Your task to perform on an android device: Go to sound settings Image 0: 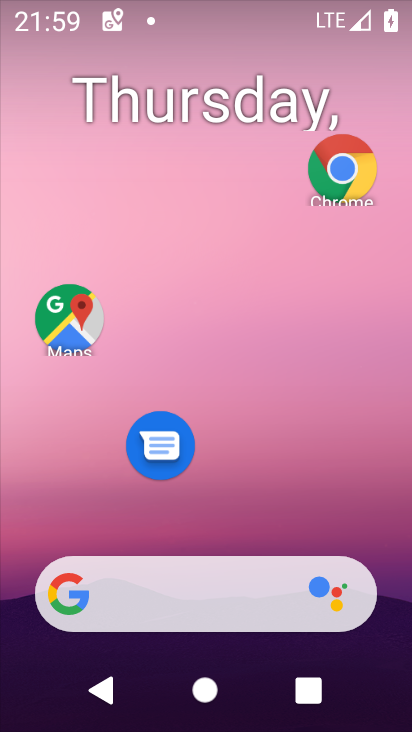
Step 0: drag from (213, 398) to (211, 156)
Your task to perform on an android device: Go to sound settings Image 1: 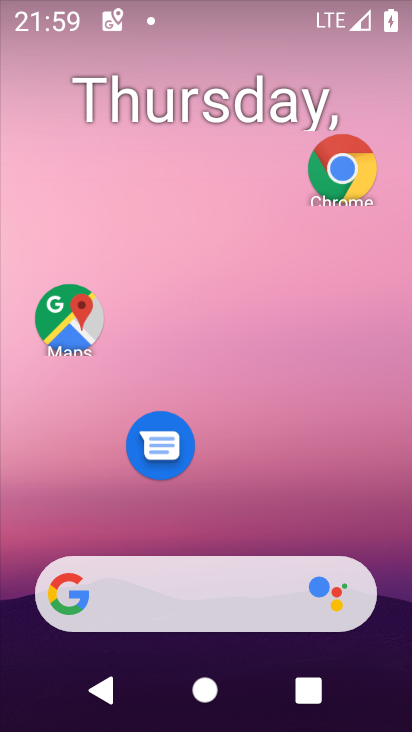
Step 1: drag from (215, 508) to (232, 134)
Your task to perform on an android device: Go to sound settings Image 2: 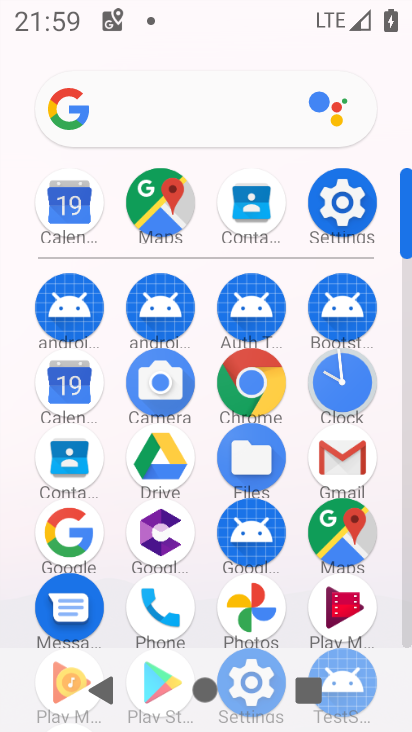
Step 2: drag from (204, 596) to (225, 251)
Your task to perform on an android device: Go to sound settings Image 3: 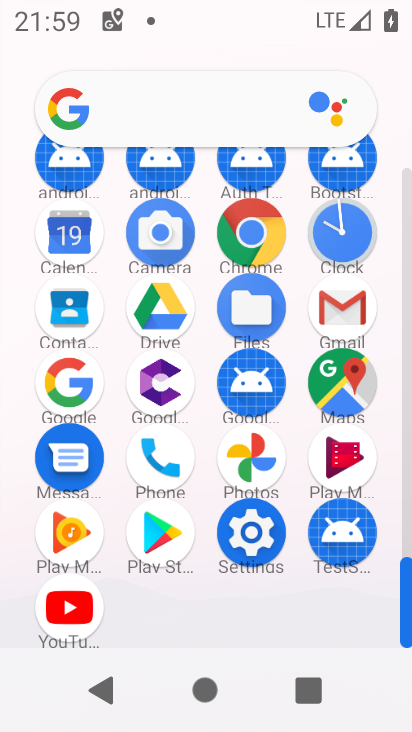
Step 3: click (247, 521)
Your task to perform on an android device: Go to sound settings Image 4: 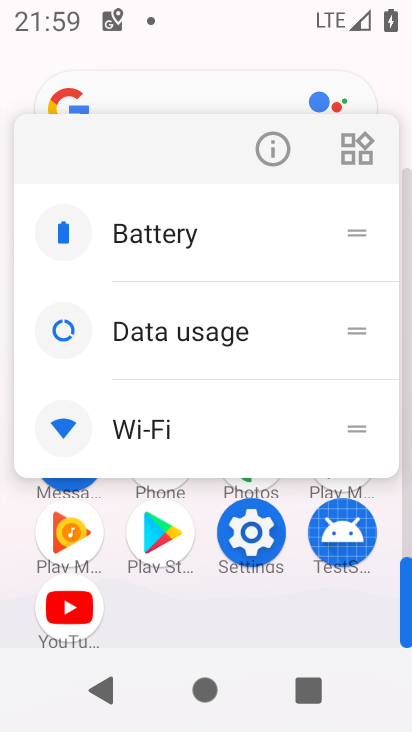
Step 4: click (282, 139)
Your task to perform on an android device: Go to sound settings Image 5: 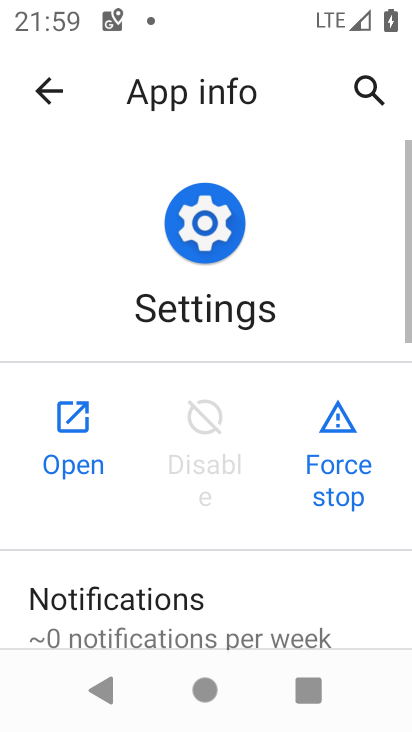
Step 5: click (85, 425)
Your task to perform on an android device: Go to sound settings Image 6: 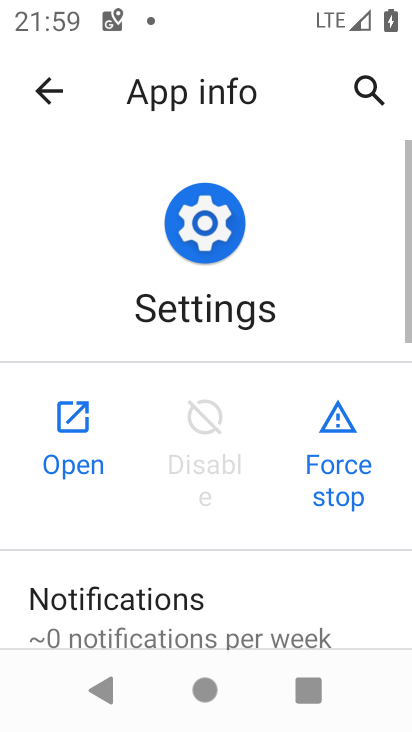
Step 6: click (85, 425)
Your task to perform on an android device: Go to sound settings Image 7: 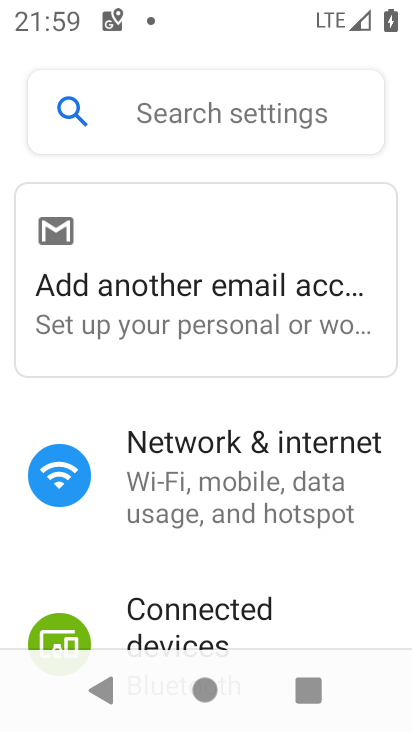
Step 7: drag from (228, 549) to (302, 143)
Your task to perform on an android device: Go to sound settings Image 8: 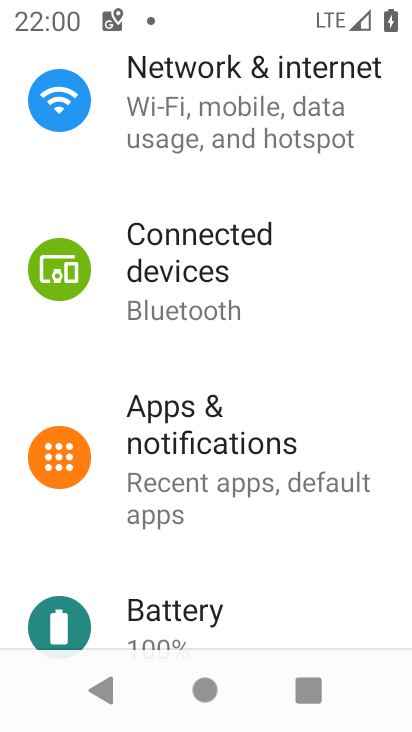
Step 8: drag from (244, 558) to (261, 119)
Your task to perform on an android device: Go to sound settings Image 9: 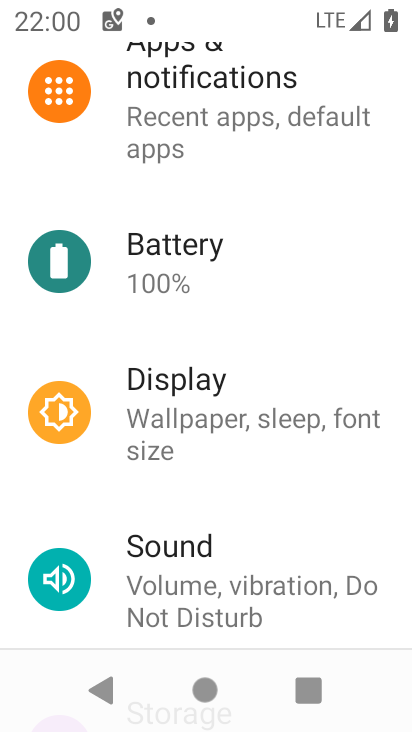
Step 9: click (208, 563)
Your task to perform on an android device: Go to sound settings Image 10: 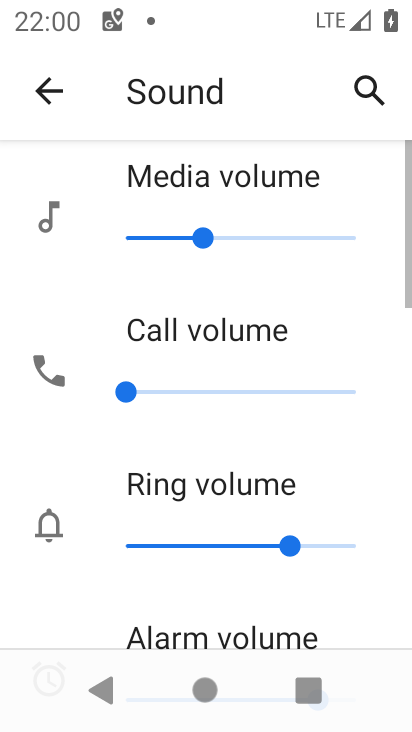
Step 10: task complete